Your task to perform on an android device: Search for "macbook pro 13 inch" on bestbuy, select the first entry, add it to the cart, then select checkout. Image 0: 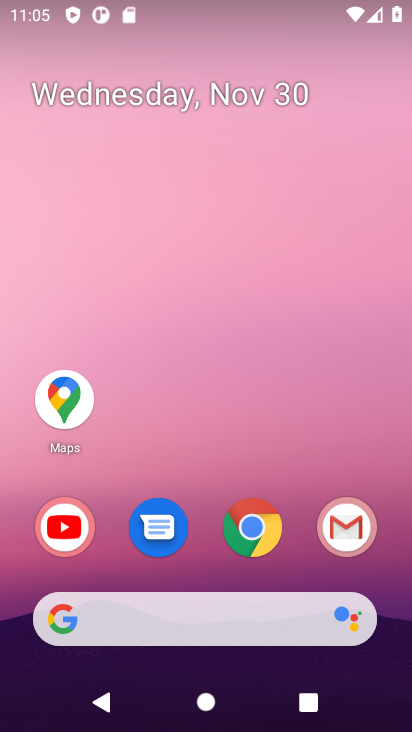
Step 0: click (243, 536)
Your task to perform on an android device: Search for "macbook pro 13 inch" on bestbuy, select the first entry, add it to the cart, then select checkout. Image 1: 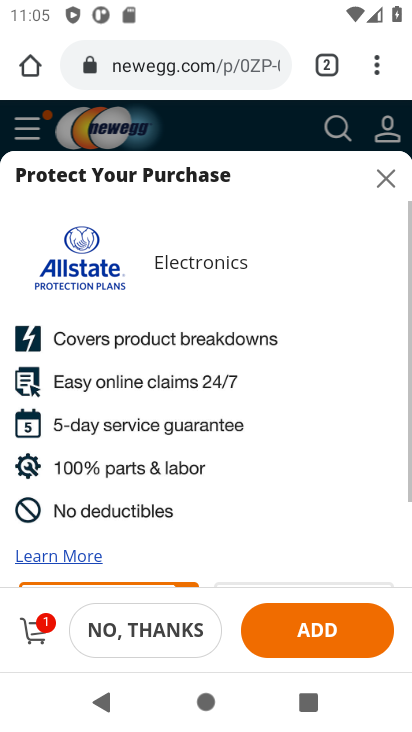
Step 1: click (179, 67)
Your task to perform on an android device: Search for "macbook pro 13 inch" on bestbuy, select the first entry, add it to the cart, then select checkout. Image 2: 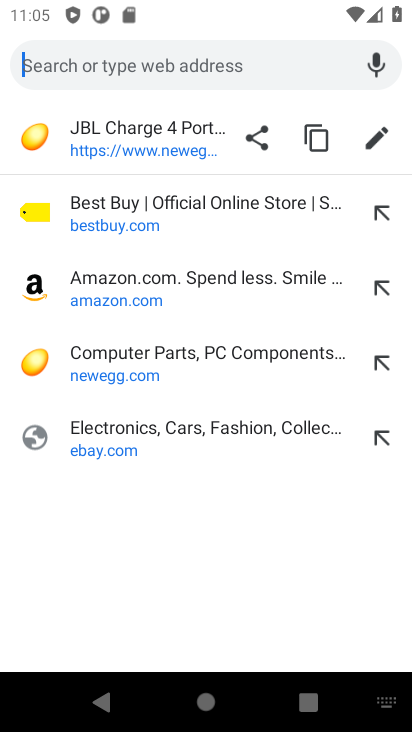
Step 2: click (99, 225)
Your task to perform on an android device: Search for "macbook pro 13 inch" on bestbuy, select the first entry, add it to the cart, then select checkout. Image 3: 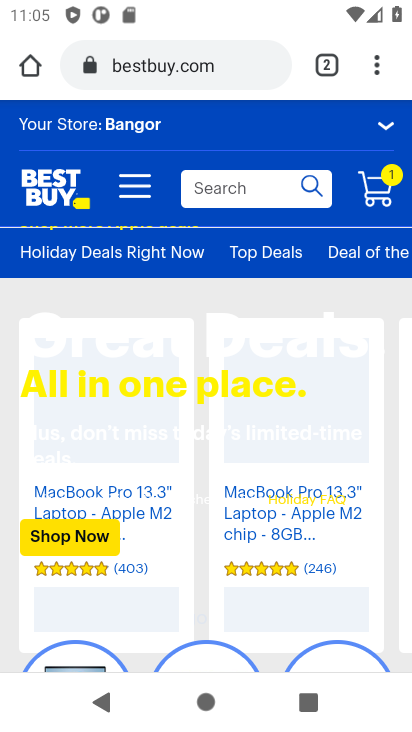
Step 3: click (203, 184)
Your task to perform on an android device: Search for "macbook pro 13 inch" on bestbuy, select the first entry, add it to the cart, then select checkout. Image 4: 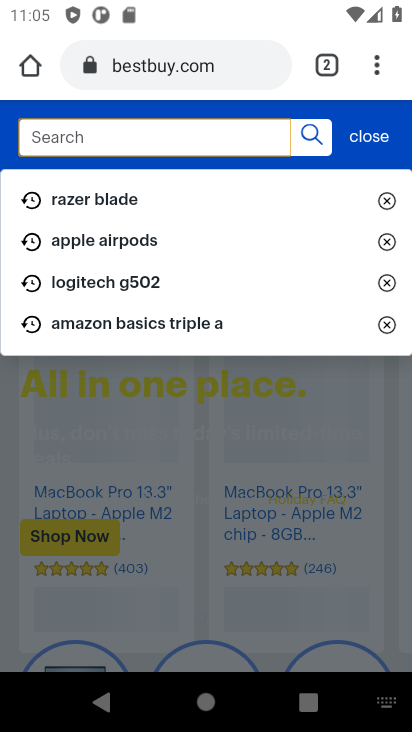
Step 4: type "macbook pro 13 inch"
Your task to perform on an android device: Search for "macbook pro 13 inch" on bestbuy, select the first entry, add it to the cart, then select checkout. Image 5: 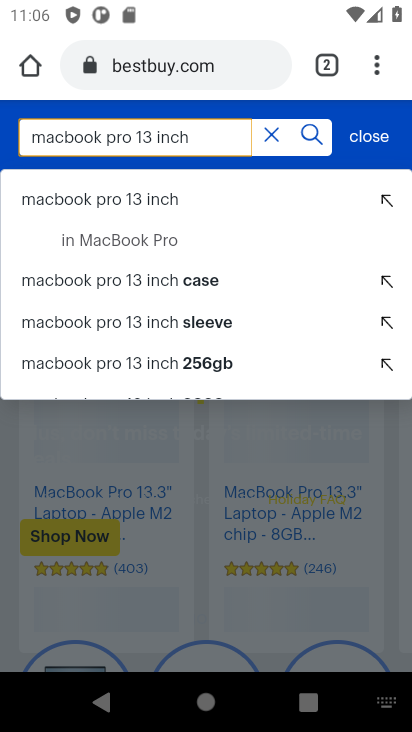
Step 5: click (89, 197)
Your task to perform on an android device: Search for "macbook pro 13 inch" on bestbuy, select the first entry, add it to the cart, then select checkout. Image 6: 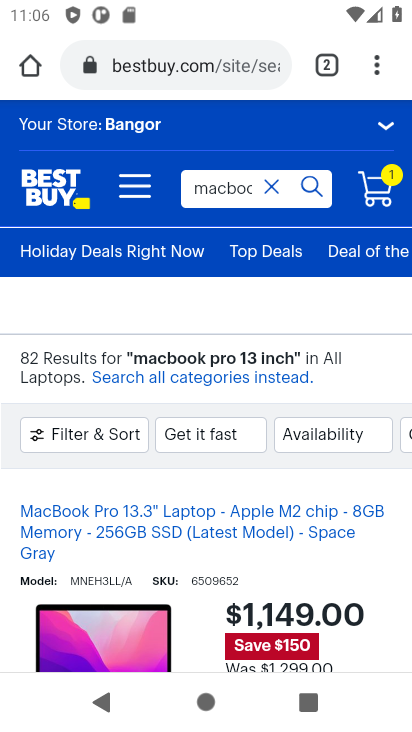
Step 6: drag from (205, 468) to (198, 180)
Your task to perform on an android device: Search for "macbook pro 13 inch" on bestbuy, select the first entry, add it to the cart, then select checkout. Image 7: 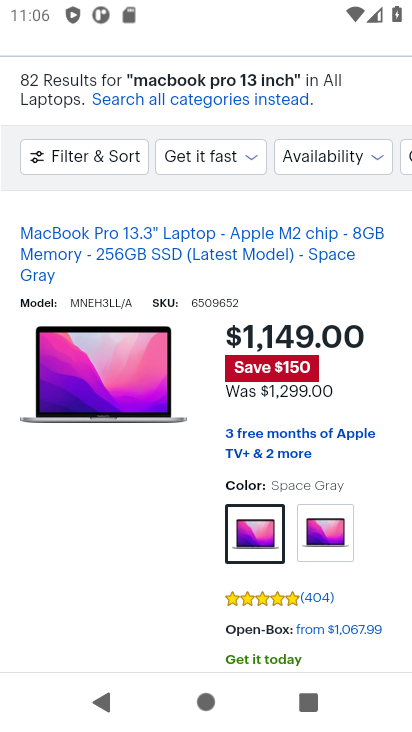
Step 7: drag from (175, 532) to (168, 415)
Your task to perform on an android device: Search for "macbook pro 13 inch" on bestbuy, select the first entry, add it to the cart, then select checkout. Image 8: 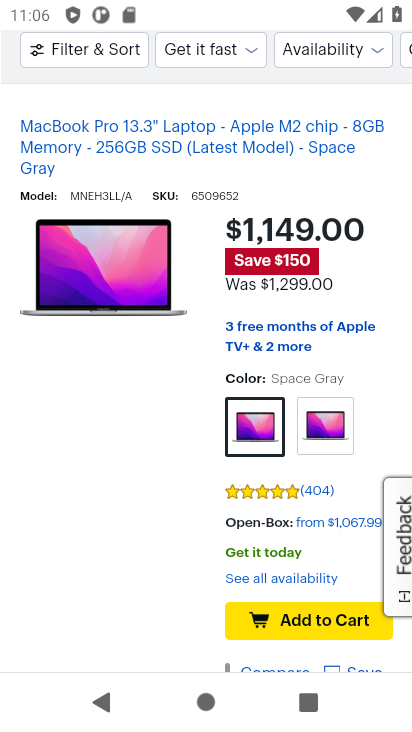
Step 8: click (317, 624)
Your task to perform on an android device: Search for "macbook pro 13 inch" on bestbuy, select the first entry, add it to the cart, then select checkout. Image 9: 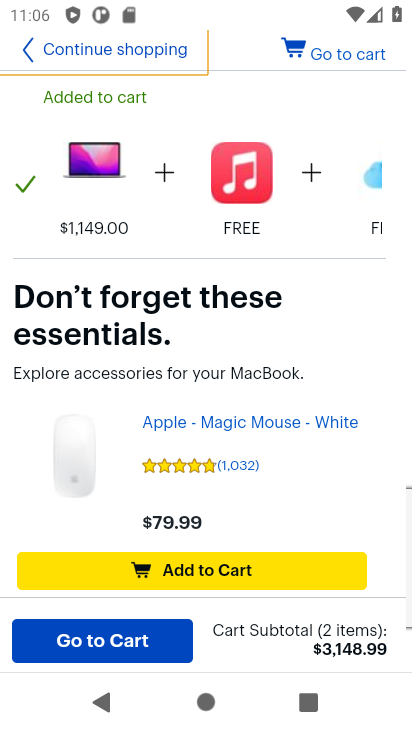
Step 9: click (344, 58)
Your task to perform on an android device: Search for "macbook pro 13 inch" on bestbuy, select the first entry, add it to the cart, then select checkout. Image 10: 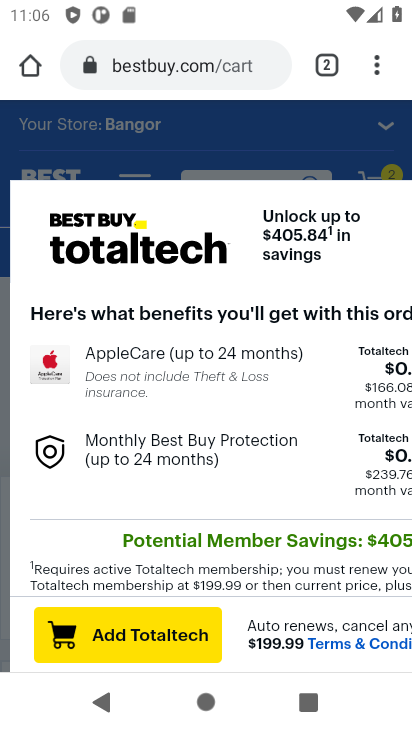
Step 10: click (264, 143)
Your task to perform on an android device: Search for "macbook pro 13 inch" on bestbuy, select the first entry, add it to the cart, then select checkout. Image 11: 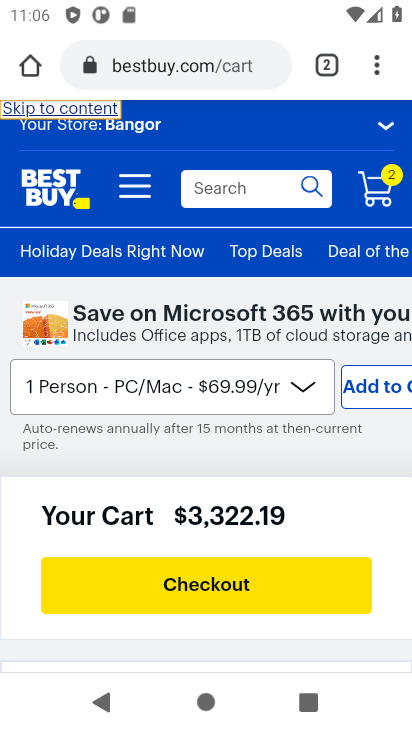
Step 11: click (171, 584)
Your task to perform on an android device: Search for "macbook pro 13 inch" on bestbuy, select the first entry, add it to the cart, then select checkout. Image 12: 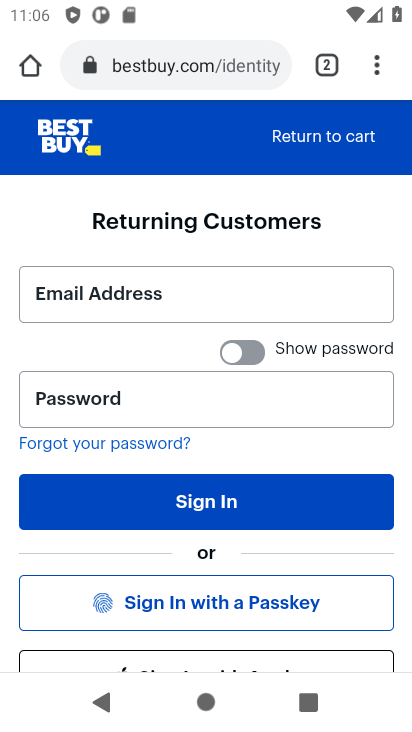
Step 12: task complete